Your task to perform on an android device: Go to Yahoo.com Image 0: 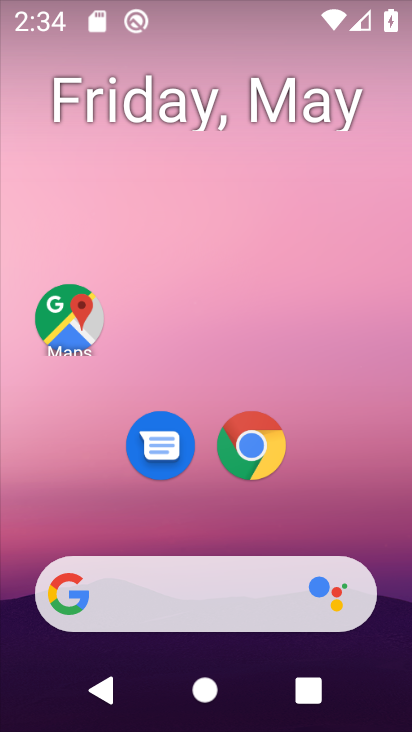
Step 0: drag from (200, 538) to (213, 190)
Your task to perform on an android device: Go to Yahoo.com Image 1: 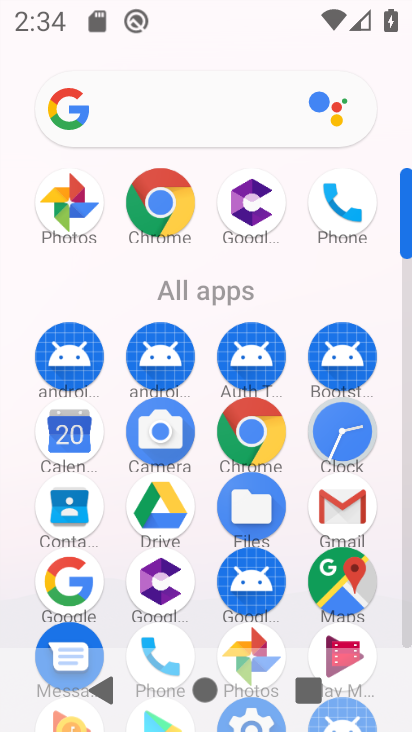
Step 1: click (162, 115)
Your task to perform on an android device: Go to Yahoo.com Image 2: 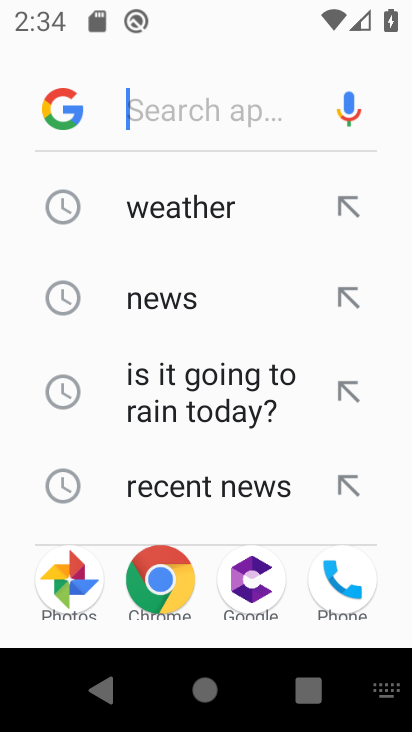
Step 2: click (155, 115)
Your task to perform on an android device: Go to Yahoo.com Image 3: 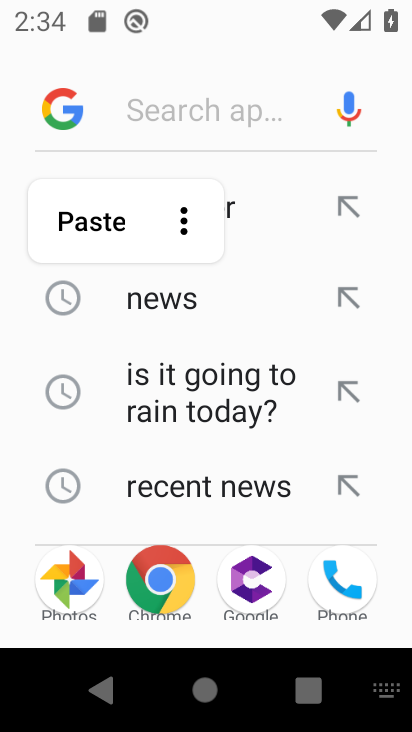
Step 3: type "Yahoo.com"
Your task to perform on an android device: Go to Yahoo.com Image 4: 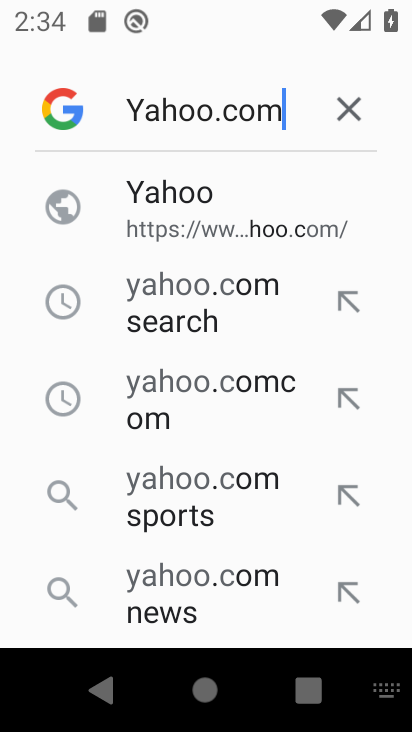
Step 4: type ""
Your task to perform on an android device: Go to Yahoo.com Image 5: 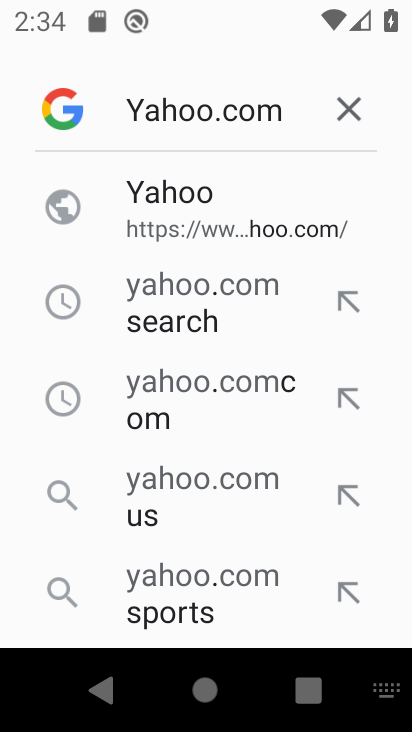
Step 5: click (203, 204)
Your task to perform on an android device: Go to Yahoo.com Image 6: 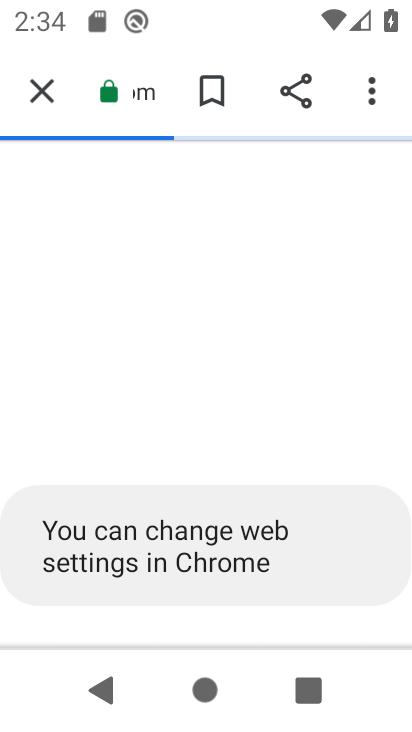
Step 6: task complete